Your task to perform on an android device: Show me the alarms in the clock app Image 0: 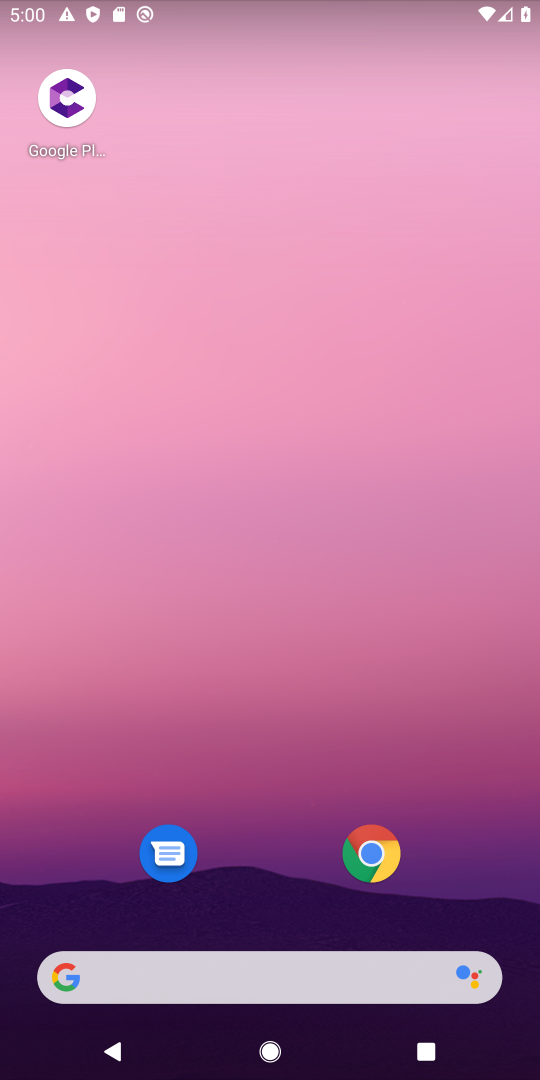
Step 0: drag from (305, 864) to (358, 11)
Your task to perform on an android device: Show me the alarms in the clock app Image 1: 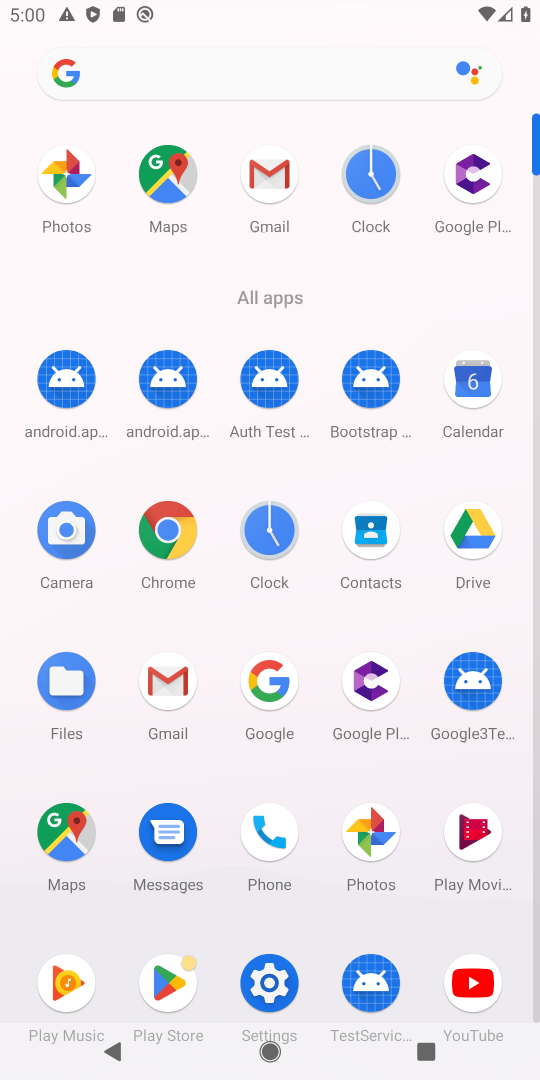
Step 1: click (272, 531)
Your task to perform on an android device: Show me the alarms in the clock app Image 2: 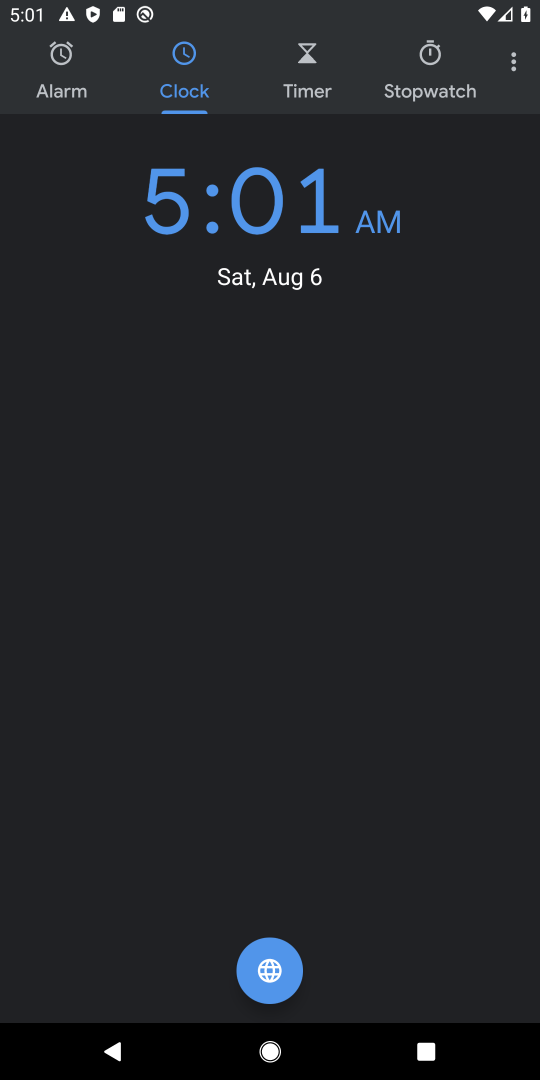
Step 2: drag from (509, 60) to (182, 624)
Your task to perform on an android device: Show me the alarms in the clock app Image 3: 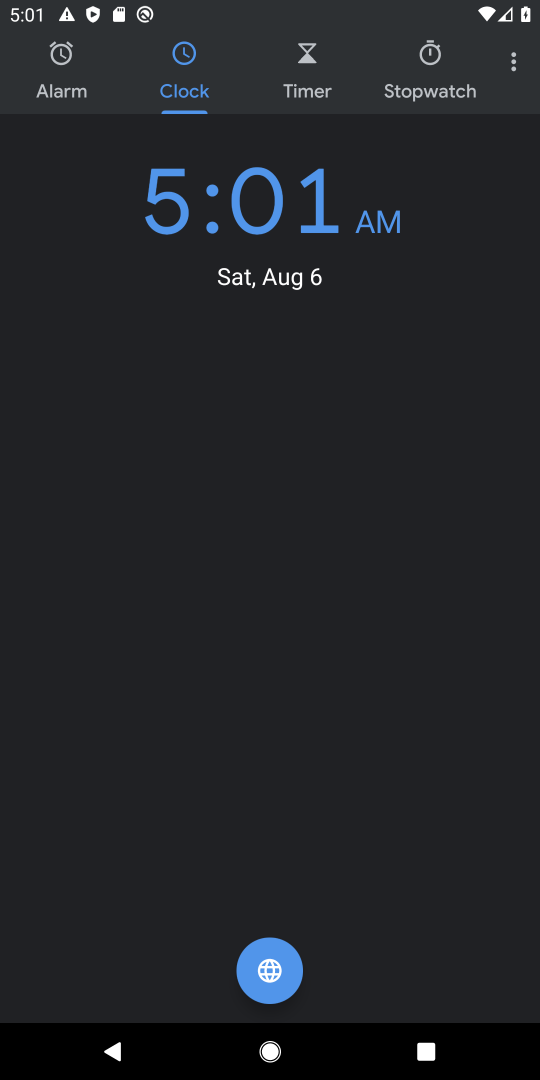
Step 3: click (84, 70)
Your task to perform on an android device: Show me the alarms in the clock app Image 4: 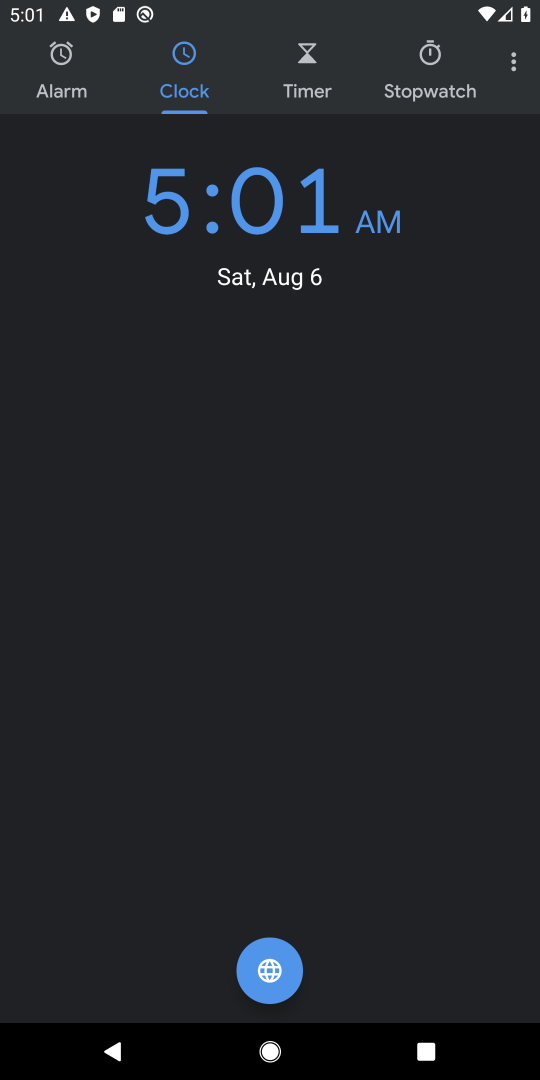
Step 4: click (84, 70)
Your task to perform on an android device: Show me the alarms in the clock app Image 5: 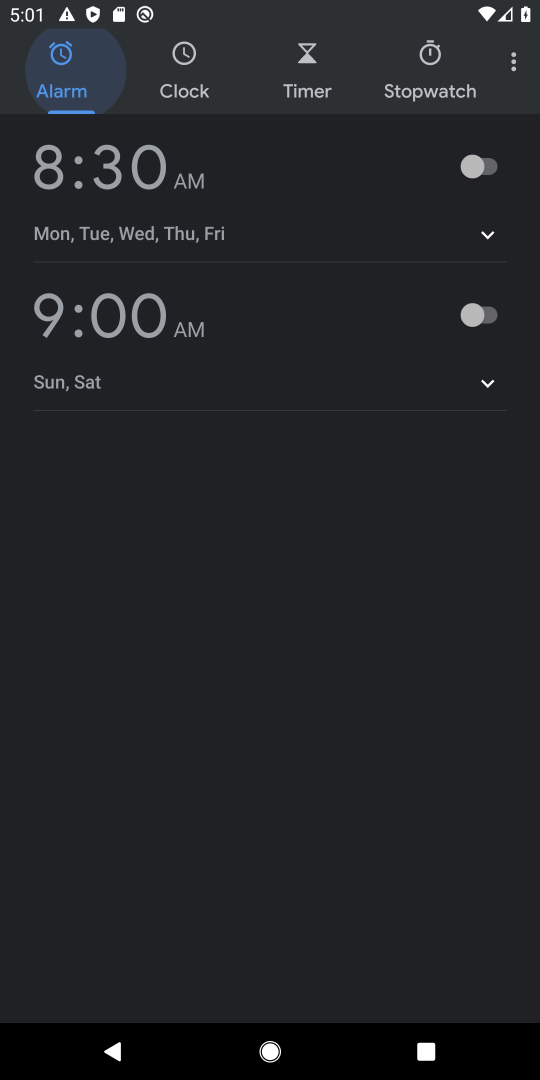
Step 5: click (84, 69)
Your task to perform on an android device: Show me the alarms in the clock app Image 6: 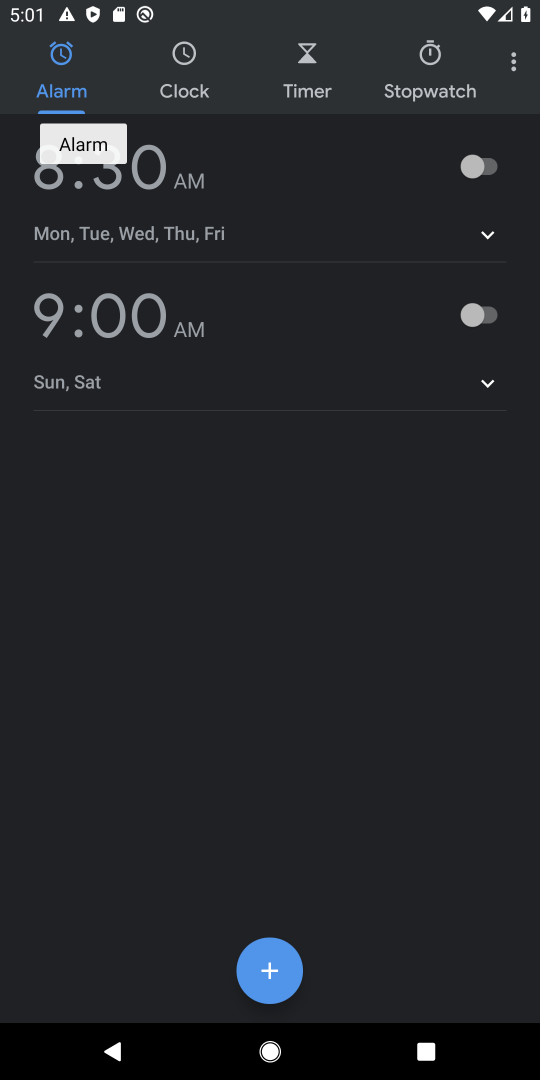
Step 6: task complete